Your task to perform on an android device: turn on wifi Image 0: 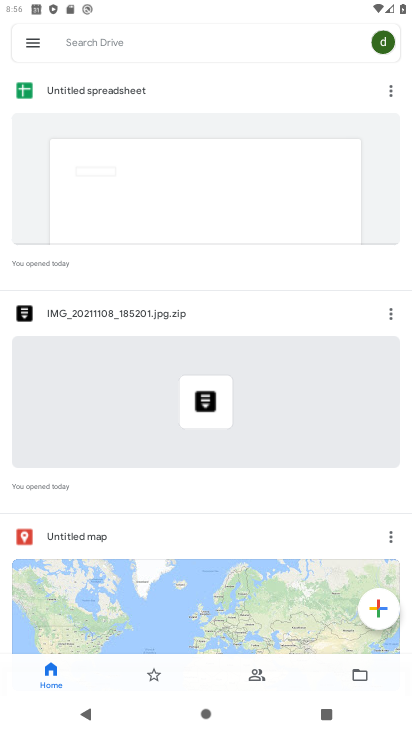
Step 0: press home button
Your task to perform on an android device: turn on wifi Image 1: 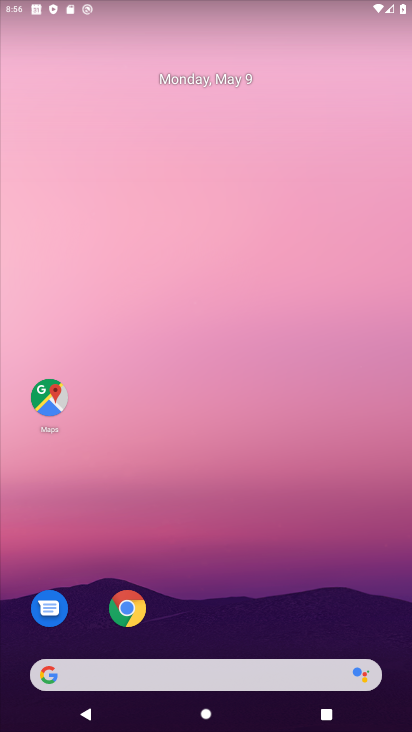
Step 1: drag from (252, 201) to (265, 3)
Your task to perform on an android device: turn on wifi Image 2: 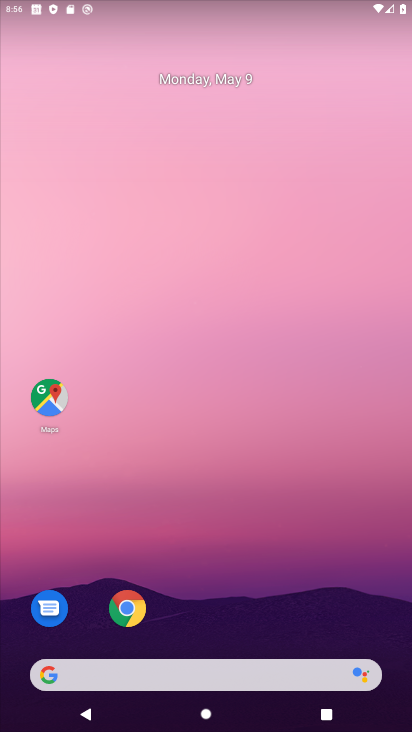
Step 2: drag from (324, 553) to (297, 127)
Your task to perform on an android device: turn on wifi Image 3: 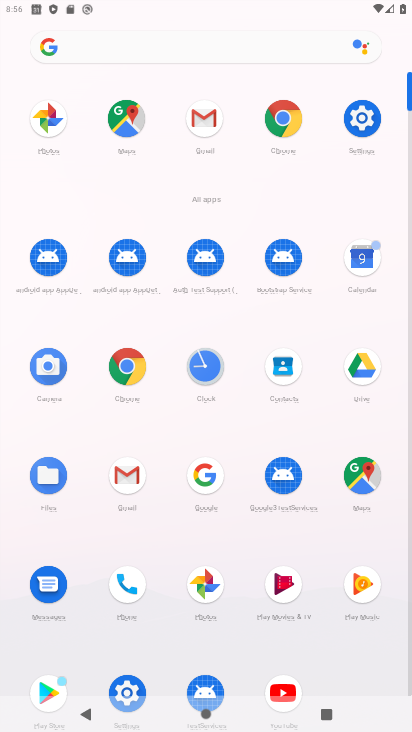
Step 3: click (352, 123)
Your task to perform on an android device: turn on wifi Image 4: 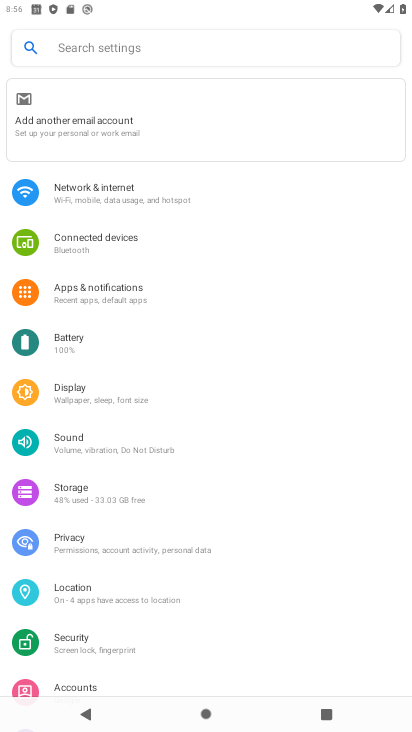
Step 4: click (106, 181)
Your task to perform on an android device: turn on wifi Image 5: 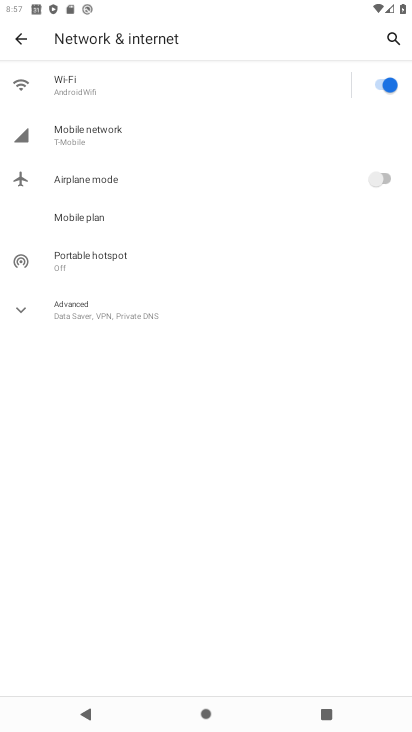
Step 5: task complete